Your task to perform on an android device: add a label to a message in the gmail app Image 0: 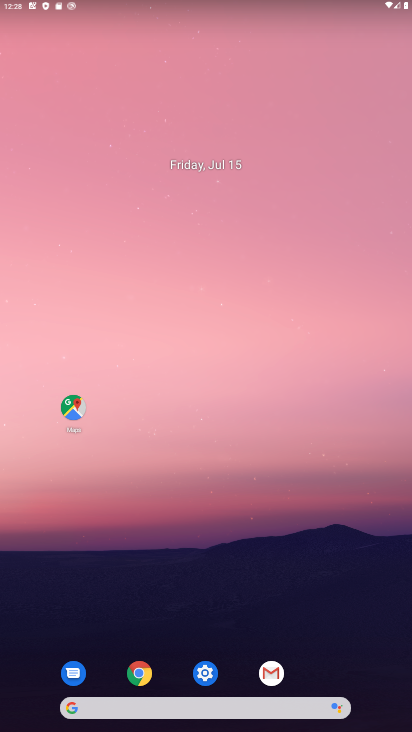
Step 0: press home button
Your task to perform on an android device: add a label to a message in the gmail app Image 1: 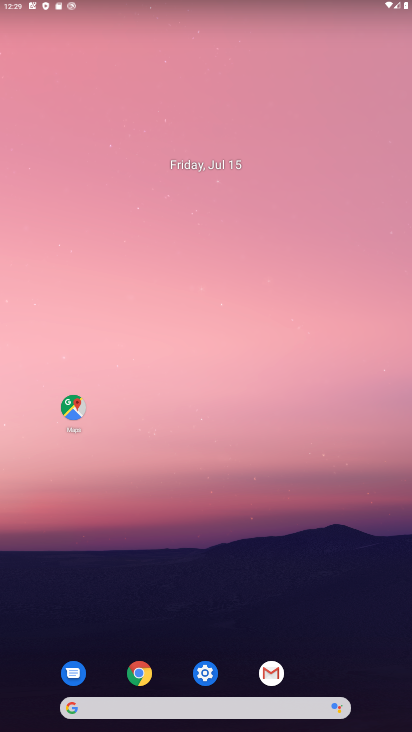
Step 1: click (276, 664)
Your task to perform on an android device: add a label to a message in the gmail app Image 2: 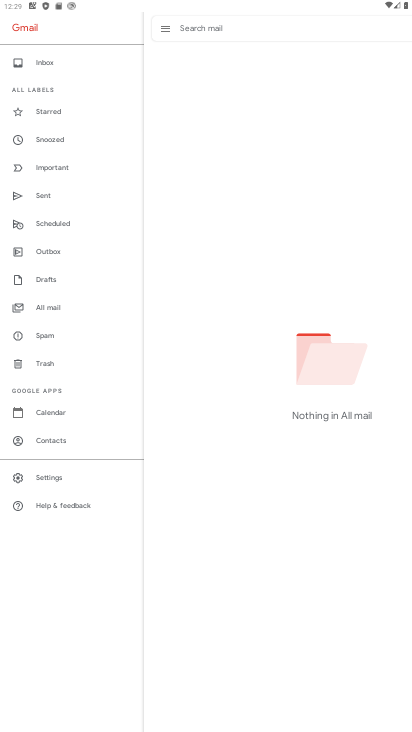
Step 2: click (53, 476)
Your task to perform on an android device: add a label to a message in the gmail app Image 3: 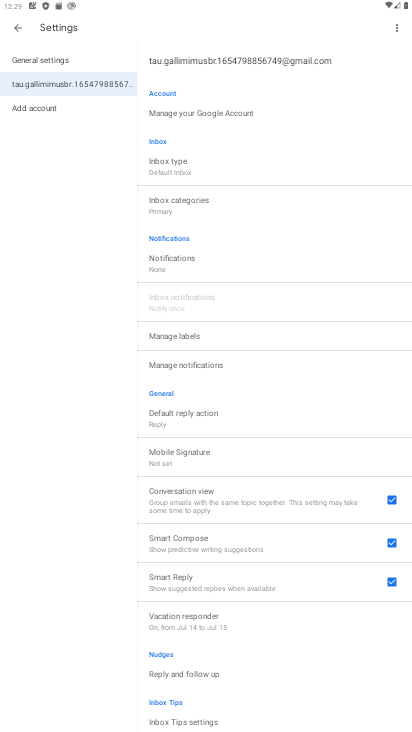
Step 3: click (183, 334)
Your task to perform on an android device: add a label to a message in the gmail app Image 4: 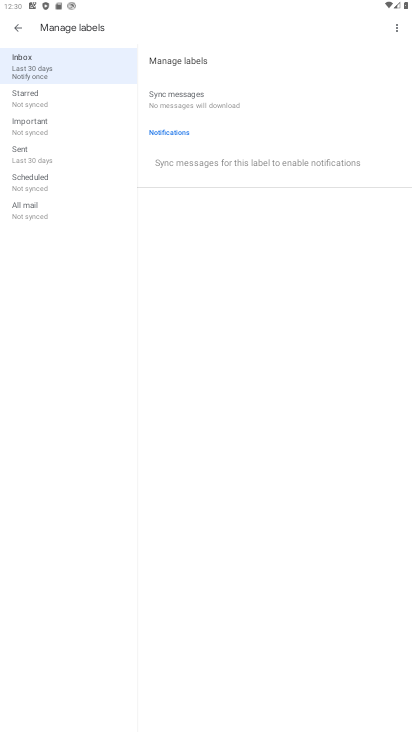
Step 4: task complete